Your task to perform on an android device: clear history in the chrome app Image 0: 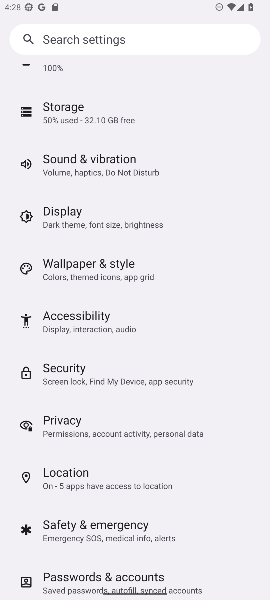
Step 0: drag from (138, 575) to (195, 336)
Your task to perform on an android device: clear history in the chrome app Image 1: 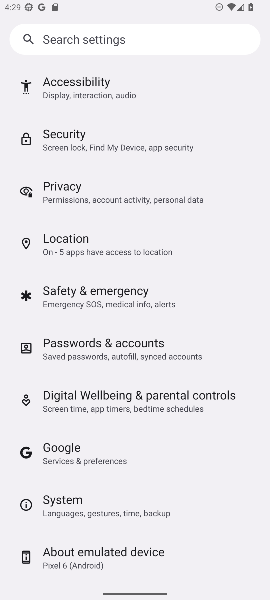
Step 1: drag from (126, 499) to (257, 295)
Your task to perform on an android device: clear history in the chrome app Image 2: 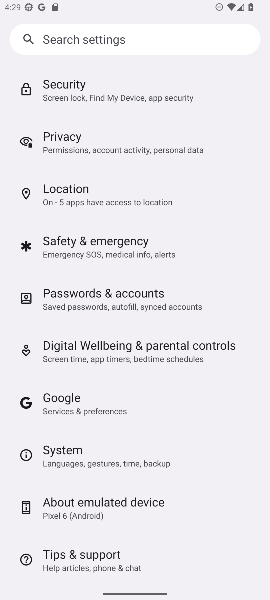
Step 2: press home button
Your task to perform on an android device: clear history in the chrome app Image 3: 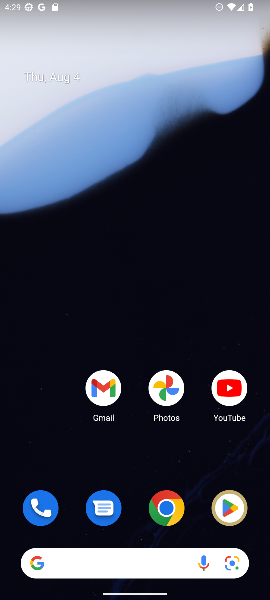
Step 3: drag from (129, 518) to (183, 179)
Your task to perform on an android device: clear history in the chrome app Image 4: 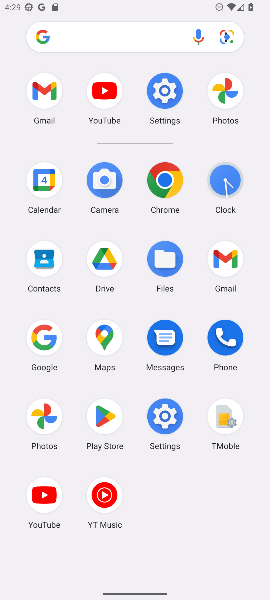
Step 4: click (156, 183)
Your task to perform on an android device: clear history in the chrome app Image 5: 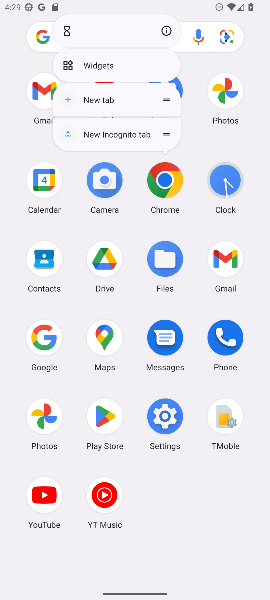
Step 5: click (164, 30)
Your task to perform on an android device: clear history in the chrome app Image 6: 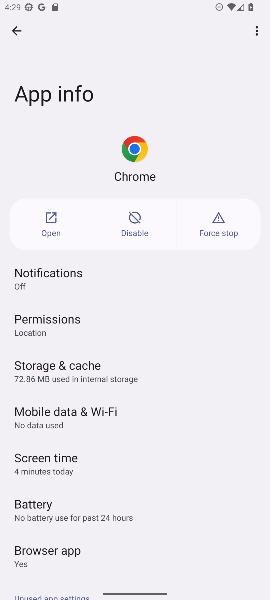
Step 6: click (43, 219)
Your task to perform on an android device: clear history in the chrome app Image 7: 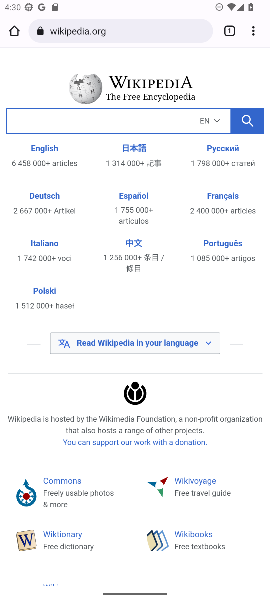
Step 7: drag from (96, 178) to (101, 477)
Your task to perform on an android device: clear history in the chrome app Image 8: 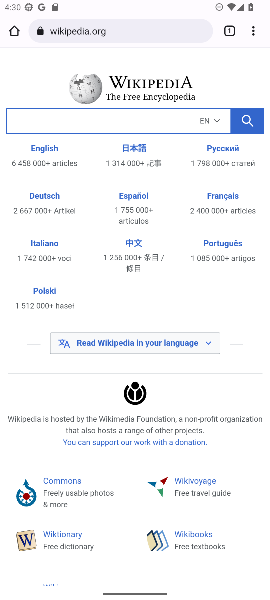
Step 8: drag from (253, 31) to (171, 117)
Your task to perform on an android device: clear history in the chrome app Image 9: 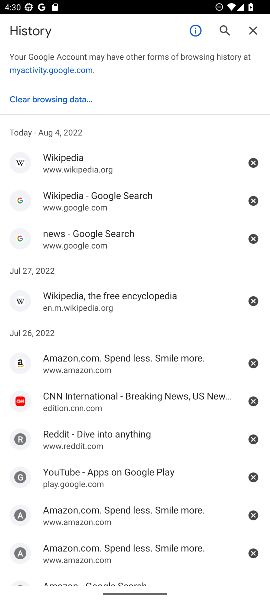
Step 9: click (69, 101)
Your task to perform on an android device: clear history in the chrome app Image 10: 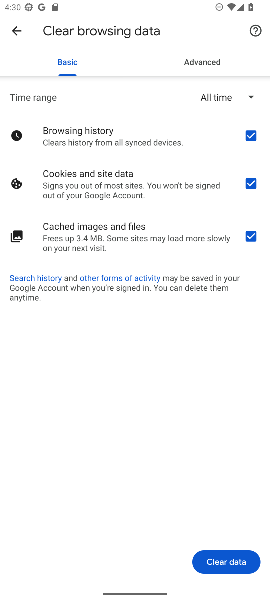
Step 10: click (225, 563)
Your task to perform on an android device: clear history in the chrome app Image 11: 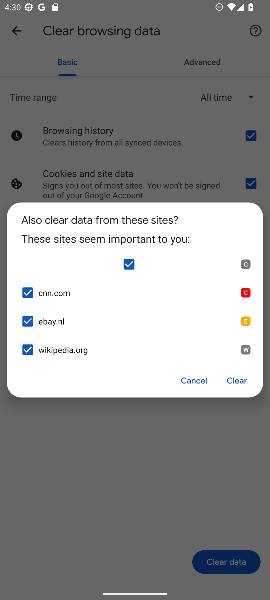
Step 11: click (226, 377)
Your task to perform on an android device: clear history in the chrome app Image 12: 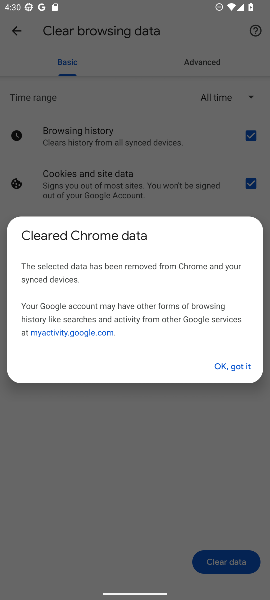
Step 12: click (235, 366)
Your task to perform on an android device: clear history in the chrome app Image 13: 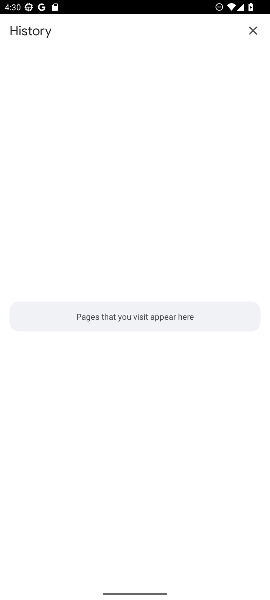
Step 13: task complete